Your task to perform on an android device: change the clock display to digital Image 0: 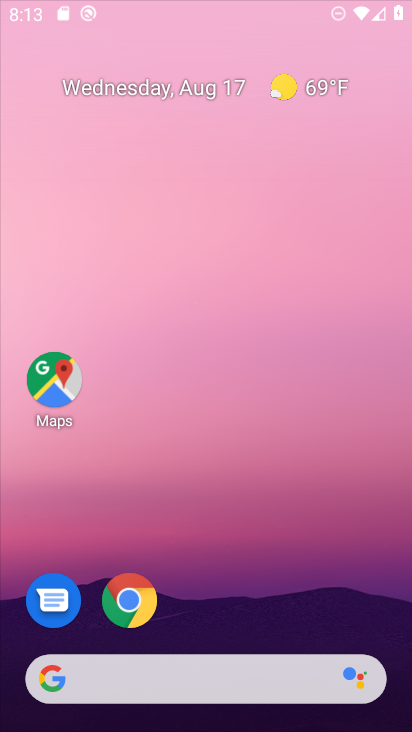
Step 0: click (55, 685)
Your task to perform on an android device: change the clock display to digital Image 1: 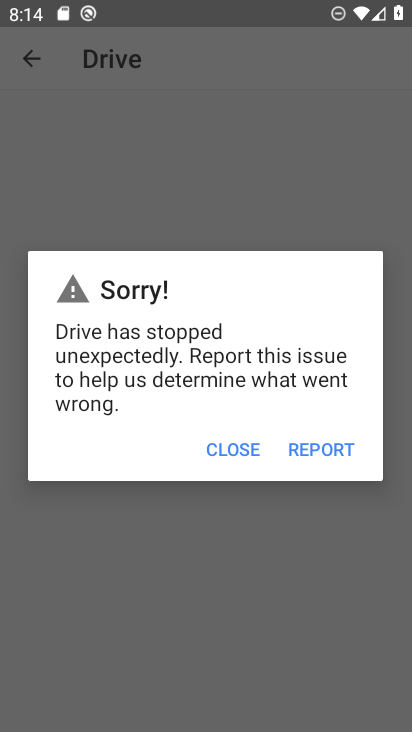
Step 1: press home button
Your task to perform on an android device: change the clock display to digital Image 2: 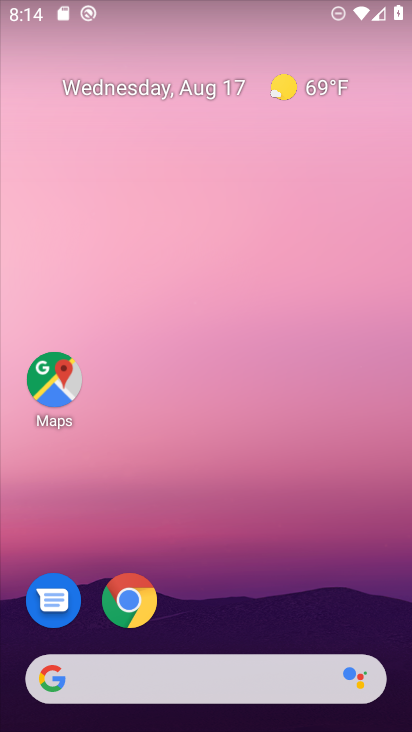
Step 2: drag from (284, 619) to (317, 94)
Your task to perform on an android device: change the clock display to digital Image 3: 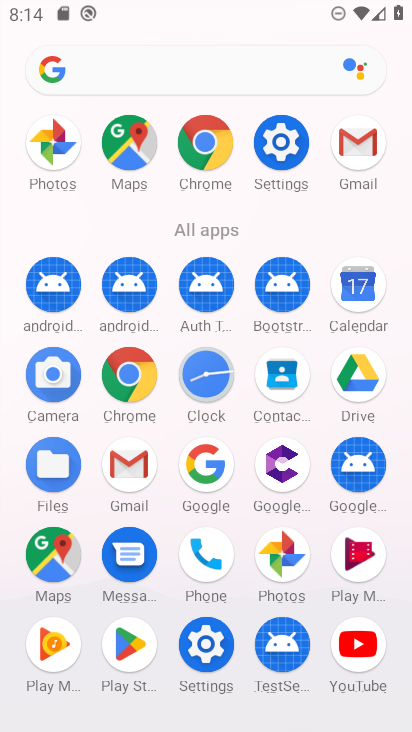
Step 3: click (210, 372)
Your task to perform on an android device: change the clock display to digital Image 4: 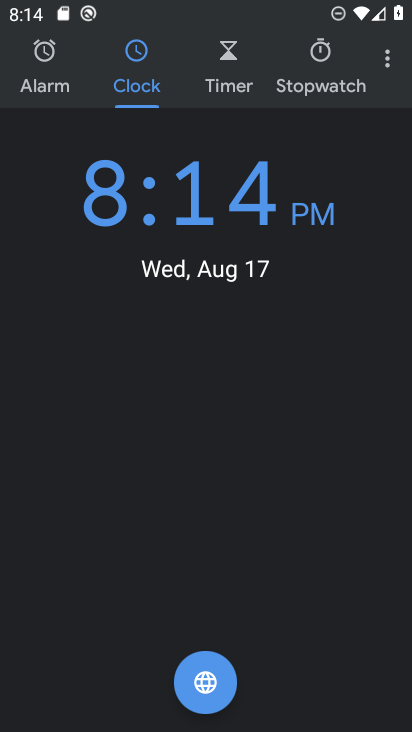
Step 4: click (386, 58)
Your task to perform on an android device: change the clock display to digital Image 5: 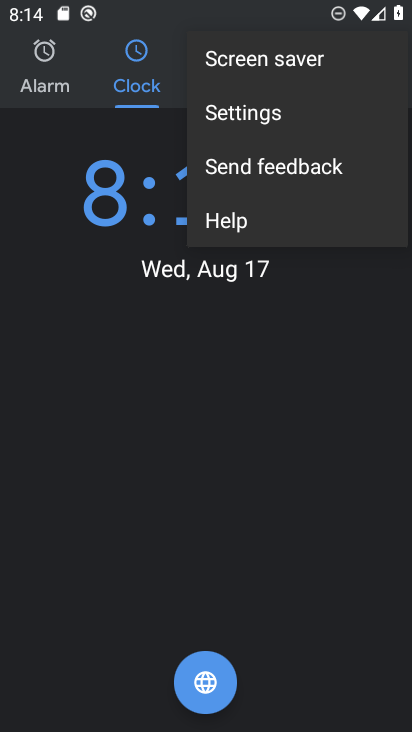
Step 5: click (246, 120)
Your task to perform on an android device: change the clock display to digital Image 6: 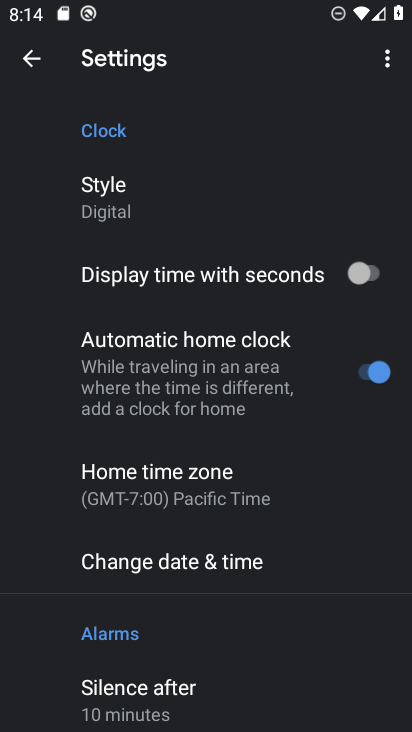
Step 6: click (106, 203)
Your task to perform on an android device: change the clock display to digital Image 7: 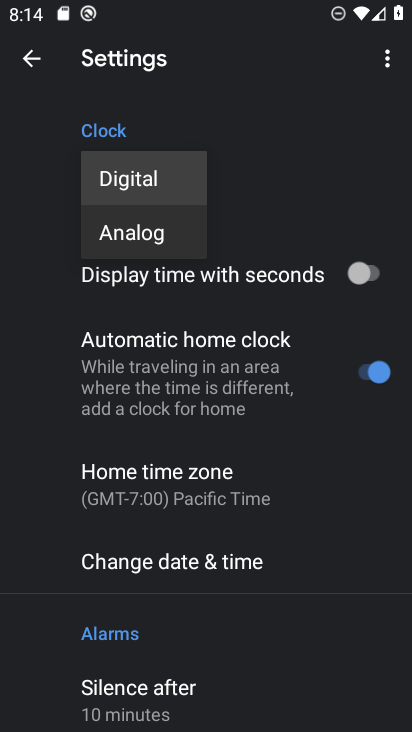
Step 7: task complete